Your task to perform on an android device: Open display settings Image 0: 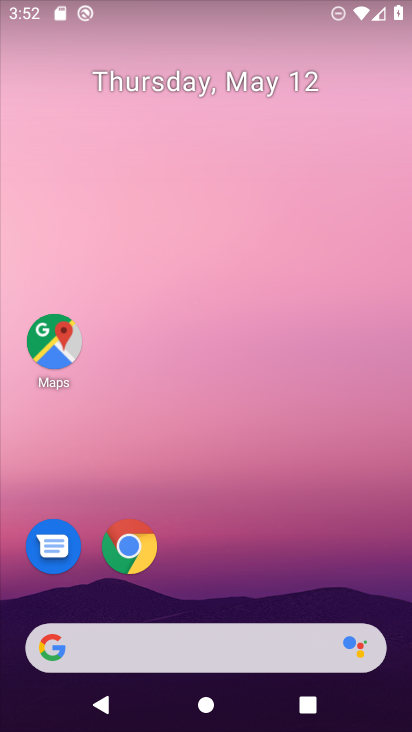
Step 0: drag from (264, 568) to (257, 233)
Your task to perform on an android device: Open display settings Image 1: 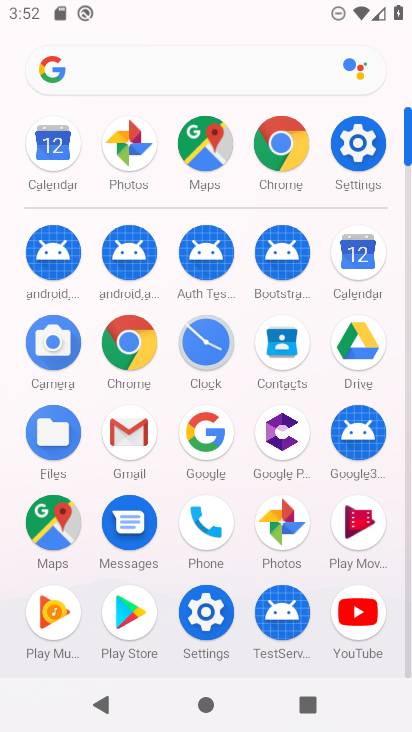
Step 1: click (356, 141)
Your task to perform on an android device: Open display settings Image 2: 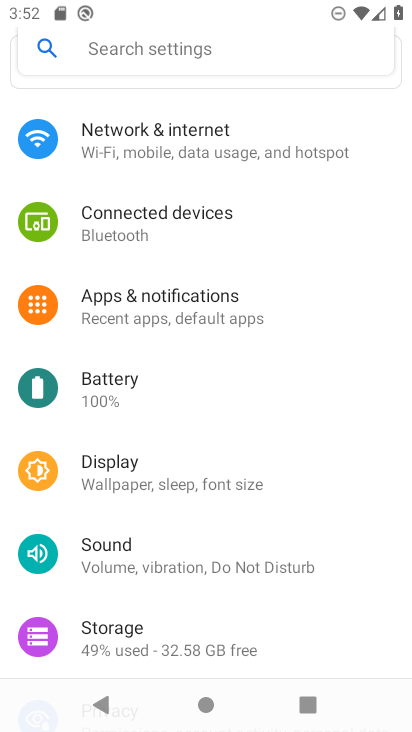
Step 2: click (129, 463)
Your task to perform on an android device: Open display settings Image 3: 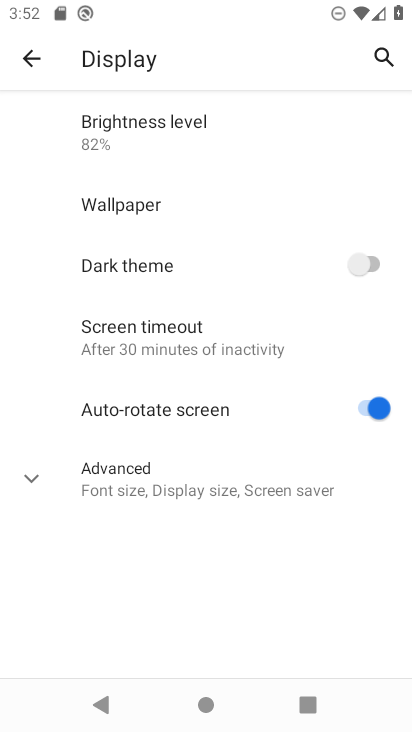
Step 3: task complete